Your task to perform on an android device: turn on the 12-hour format for clock Image 0: 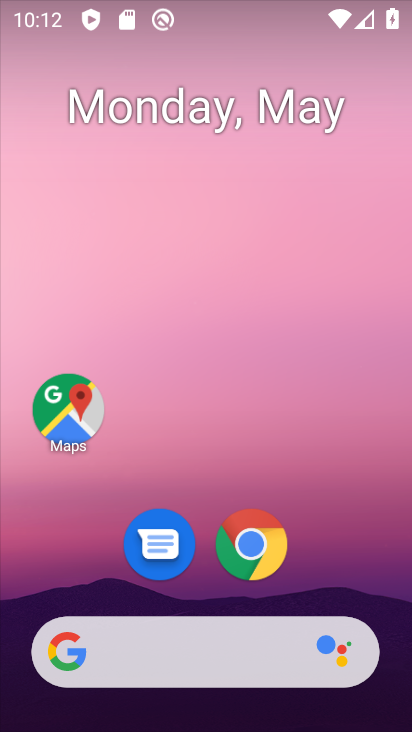
Step 0: drag from (223, 604) to (236, 123)
Your task to perform on an android device: turn on the 12-hour format for clock Image 1: 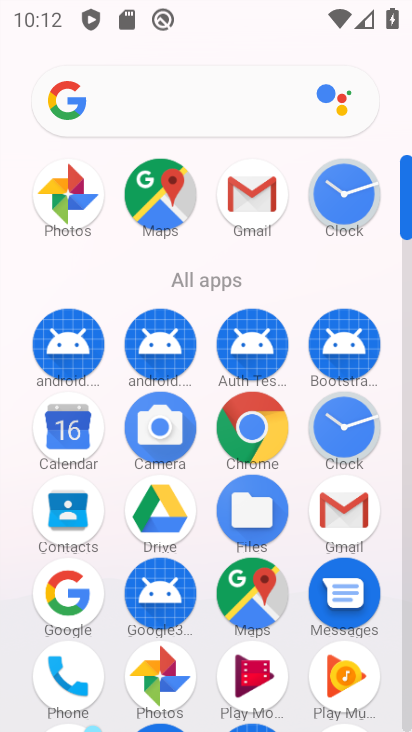
Step 1: click (336, 427)
Your task to perform on an android device: turn on the 12-hour format for clock Image 2: 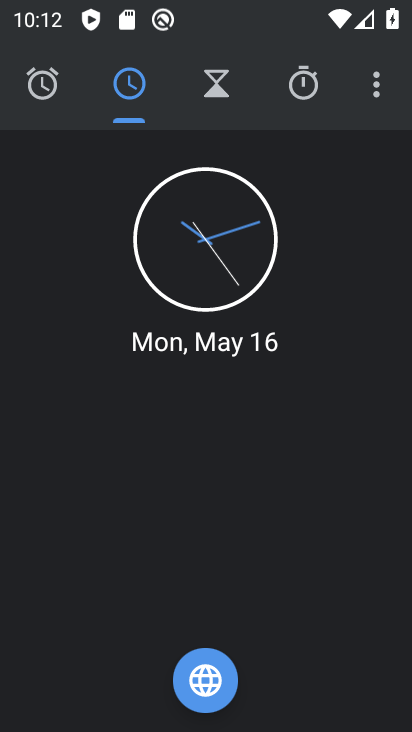
Step 2: click (375, 105)
Your task to perform on an android device: turn on the 12-hour format for clock Image 3: 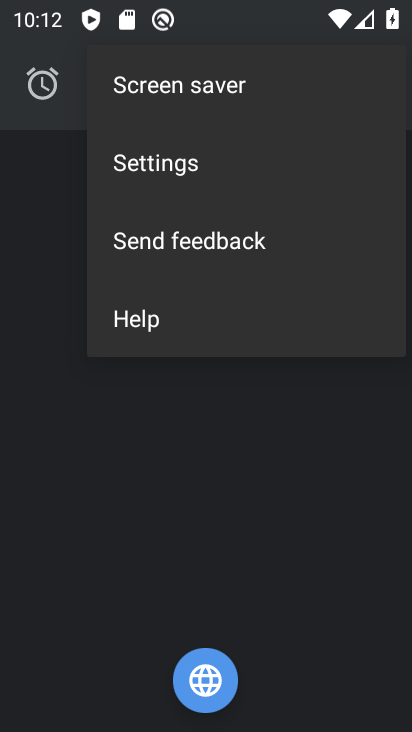
Step 3: click (208, 186)
Your task to perform on an android device: turn on the 12-hour format for clock Image 4: 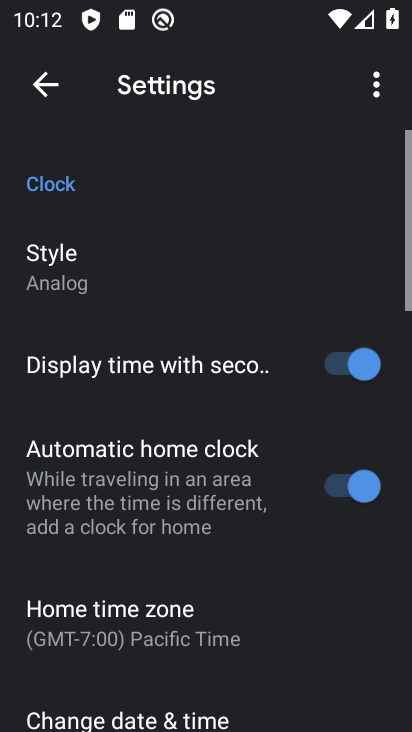
Step 4: drag from (248, 600) to (196, 255)
Your task to perform on an android device: turn on the 12-hour format for clock Image 5: 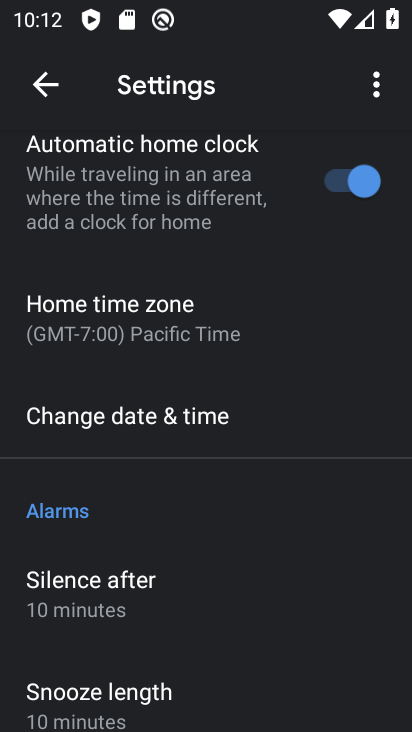
Step 5: click (211, 402)
Your task to perform on an android device: turn on the 12-hour format for clock Image 6: 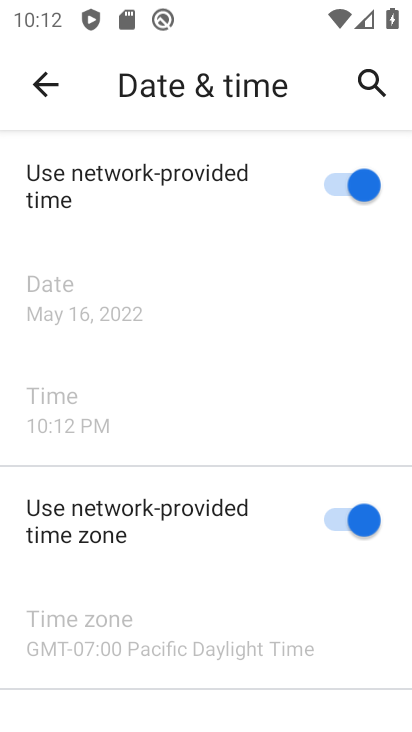
Step 6: drag from (280, 569) to (279, 237)
Your task to perform on an android device: turn on the 12-hour format for clock Image 7: 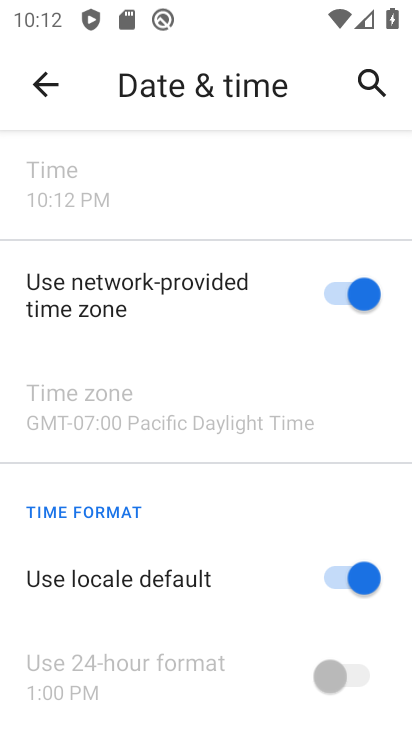
Step 7: click (332, 577)
Your task to perform on an android device: turn on the 12-hour format for clock Image 8: 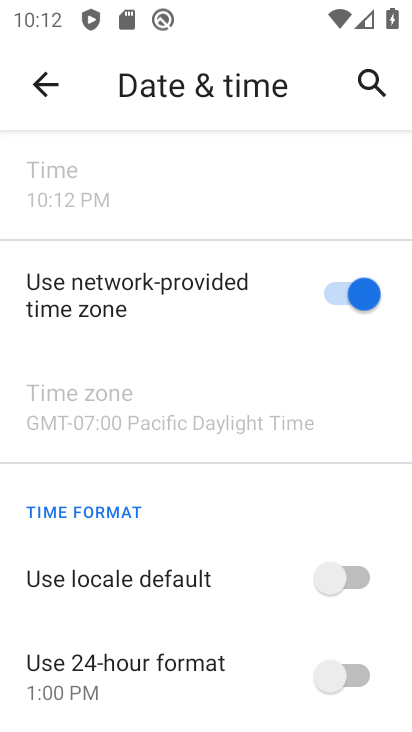
Step 8: task complete